Your task to perform on an android device: change text size in settings app Image 0: 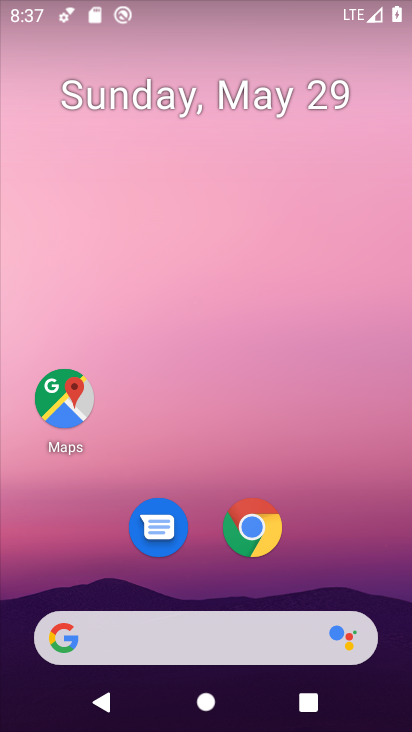
Step 0: press home button
Your task to perform on an android device: change text size in settings app Image 1: 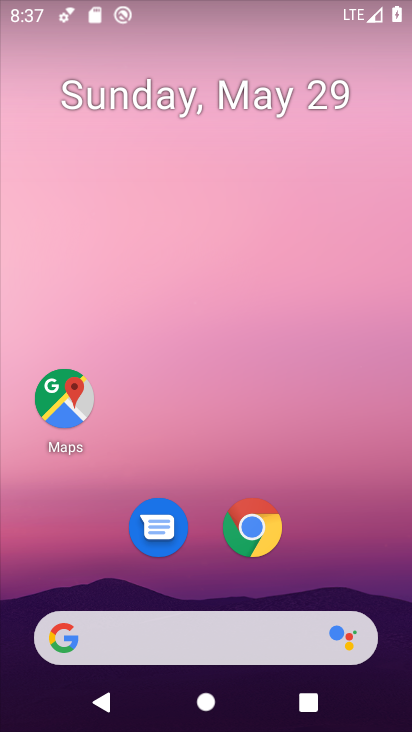
Step 1: drag from (212, 581) to (217, 78)
Your task to perform on an android device: change text size in settings app Image 2: 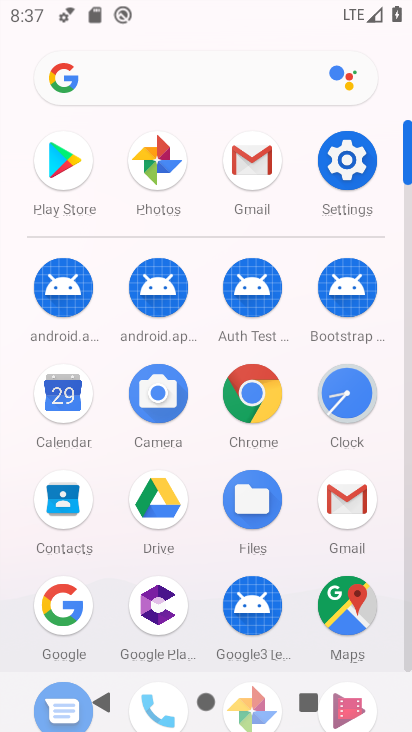
Step 2: click (350, 160)
Your task to perform on an android device: change text size in settings app Image 3: 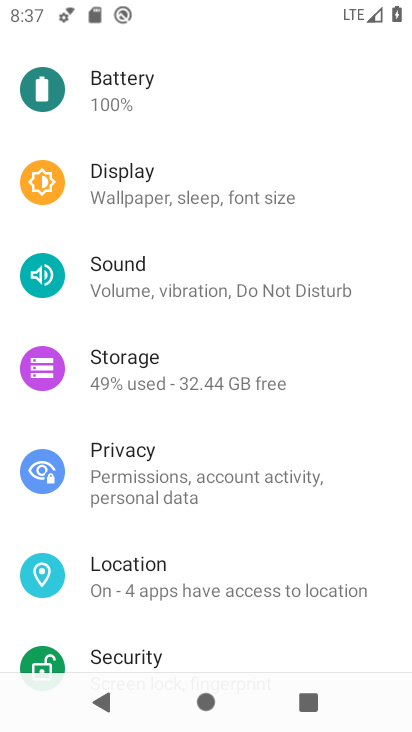
Step 3: click (137, 197)
Your task to perform on an android device: change text size in settings app Image 4: 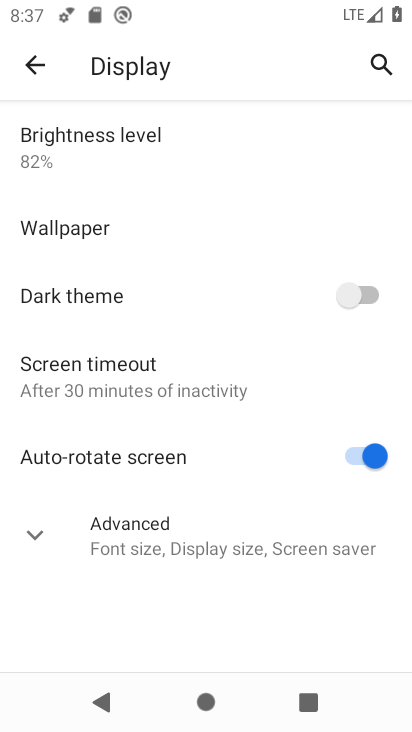
Step 4: click (28, 533)
Your task to perform on an android device: change text size in settings app Image 5: 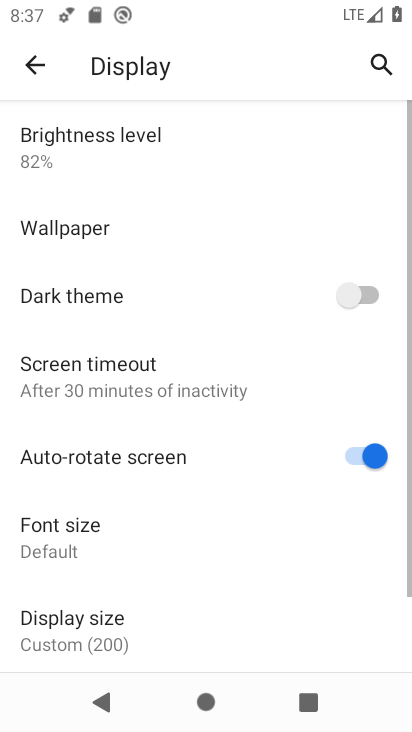
Step 5: click (105, 551)
Your task to perform on an android device: change text size in settings app Image 6: 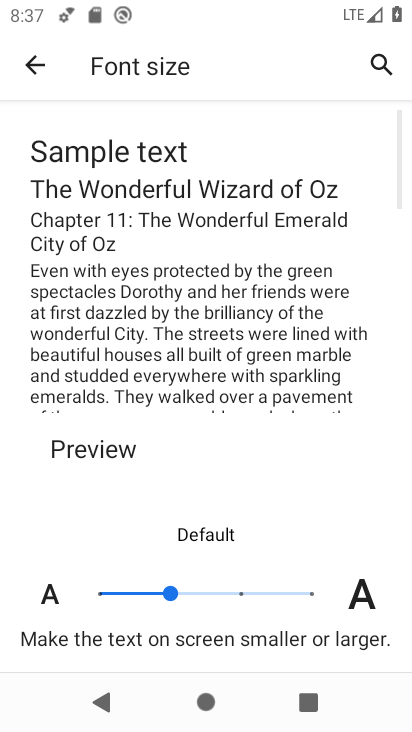
Step 6: click (102, 598)
Your task to perform on an android device: change text size in settings app Image 7: 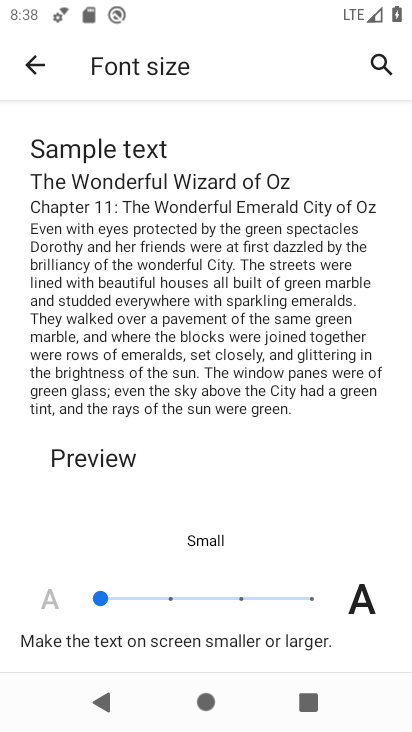
Step 7: task complete